Your task to perform on an android device: Show me the alarms in the clock app Image 0: 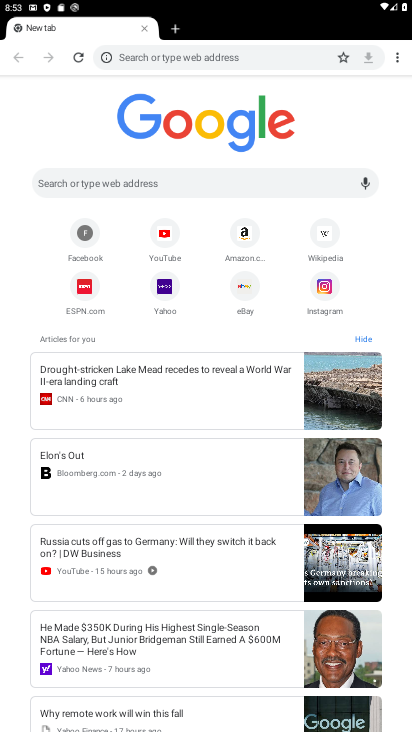
Step 0: press home button
Your task to perform on an android device: Show me the alarms in the clock app Image 1: 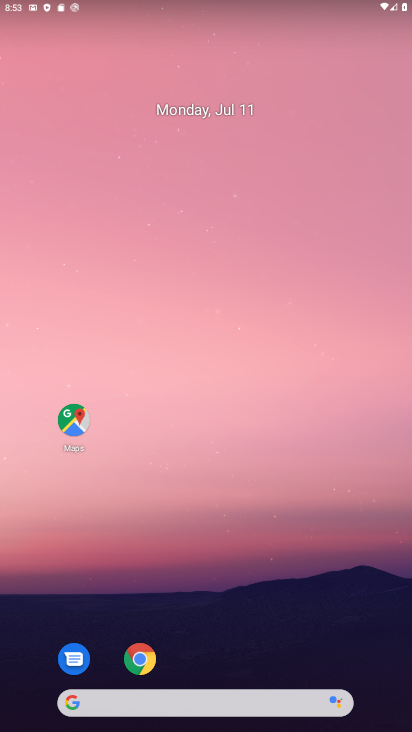
Step 1: drag from (334, 609) to (370, 89)
Your task to perform on an android device: Show me the alarms in the clock app Image 2: 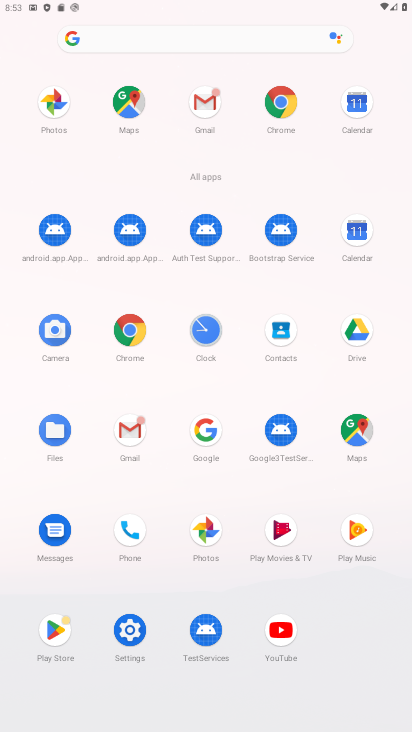
Step 2: click (213, 328)
Your task to perform on an android device: Show me the alarms in the clock app Image 3: 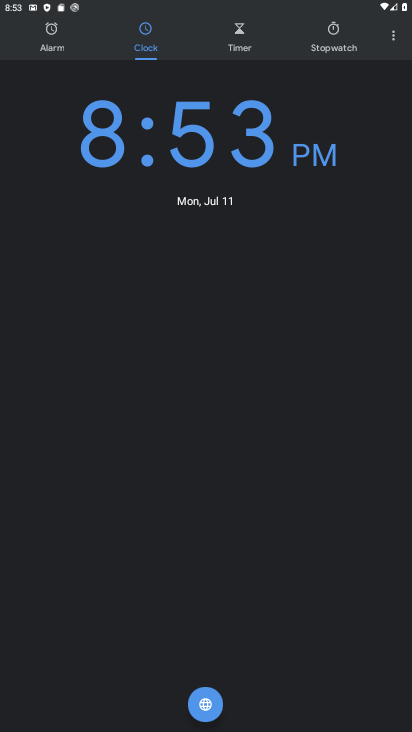
Step 3: click (51, 37)
Your task to perform on an android device: Show me the alarms in the clock app Image 4: 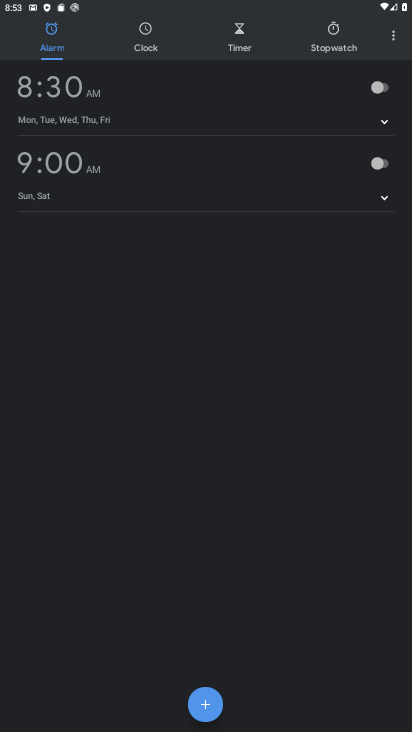
Step 4: task complete